Your task to perform on an android device: show emergency info Image 0: 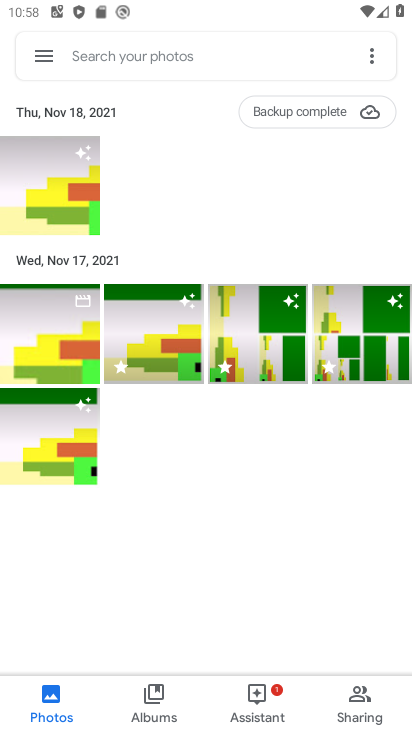
Step 0: press home button
Your task to perform on an android device: show emergency info Image 1: 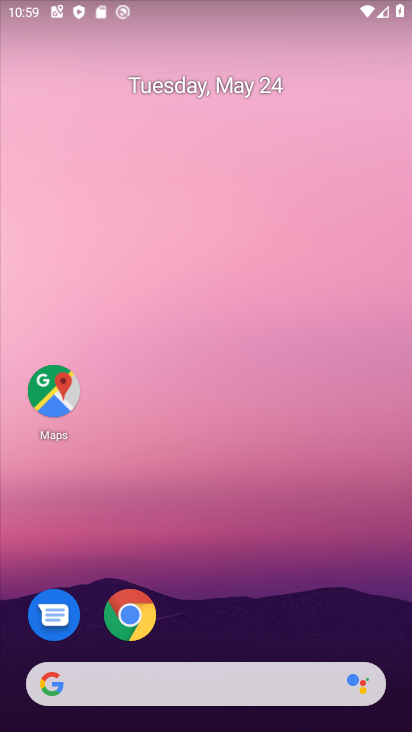
Step 1: drag from (312, 636) to (297, 36)
Your task to perform on an android device: show emergency info Image 2: 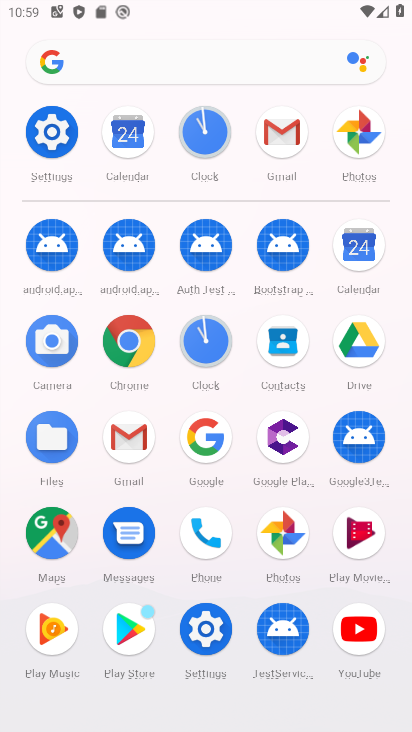
Step 2: click (42, 138)
Your task to perform on an android device: show emergency info Image 3: 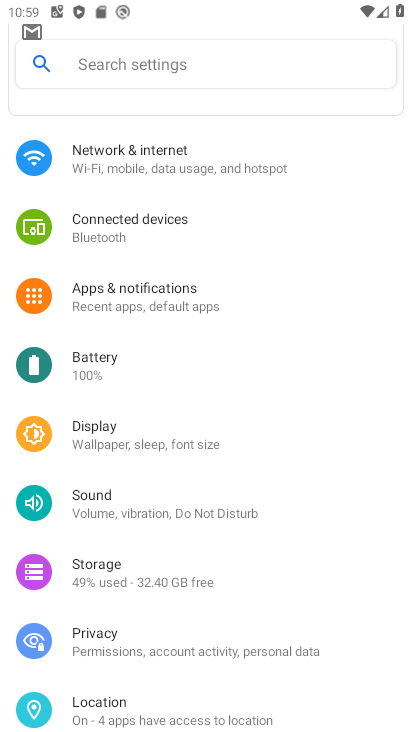
Step 3: drag from (220, 604) to (220, 161)
Your task to perform on an android device: show emergency info Image 4: 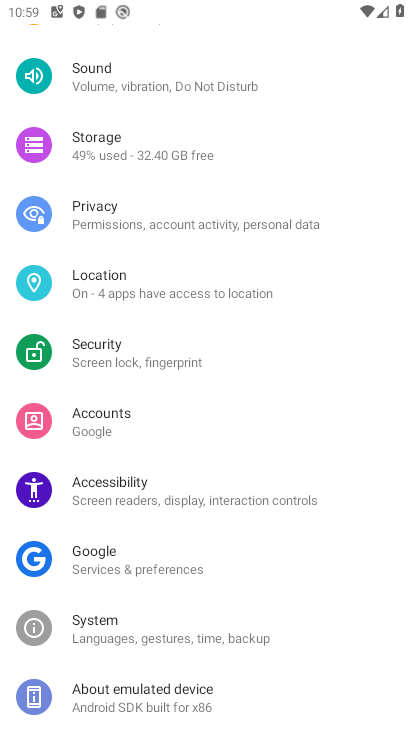
Step 4: click (149, 694)
Your task to perform on an android device: show emergency info Image 5: 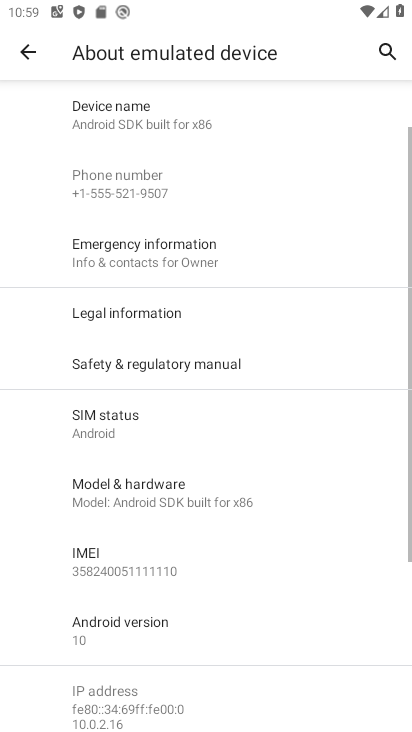
Step 5: click (176, 250)
Your task to perform on an android device: show emergency info Image 6: 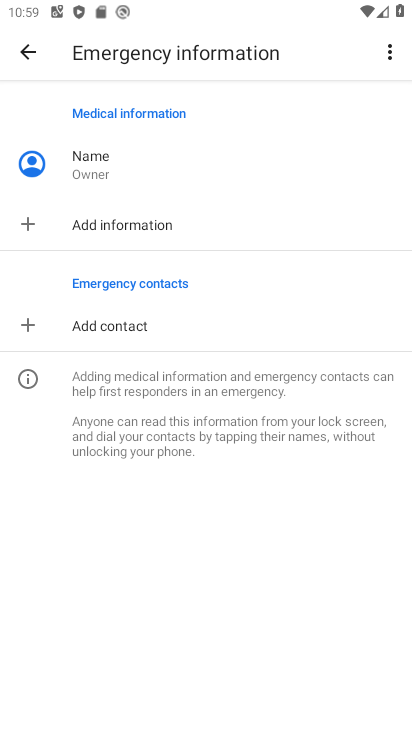
Step 6: task complete